Your task to perform on an android device: turn notification dots off Image 0: 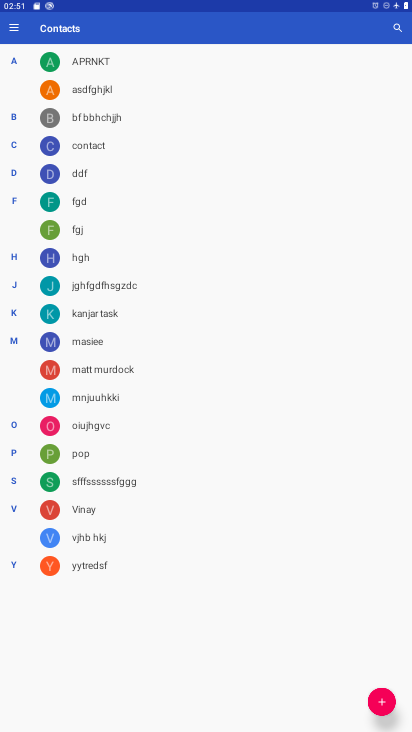
Step 0: press home button
Your task to perform on an android device: turn notification dots off Image 1: 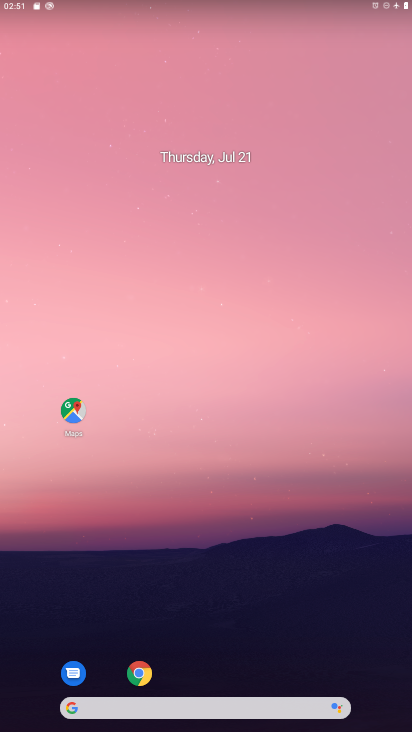
Step 1: drag from (290, 689) to (276, 27)
Your task to perform on an android device: turn notification dots off Image 2: 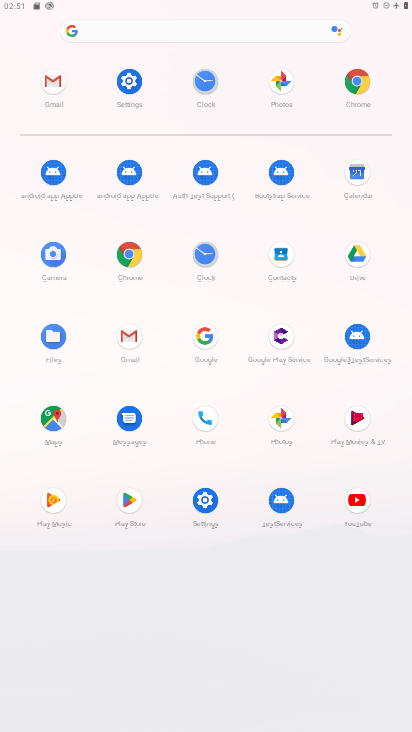
Step 2: click (137, 82)
Your task to perform on an android device: turn notification dots off Image 3: 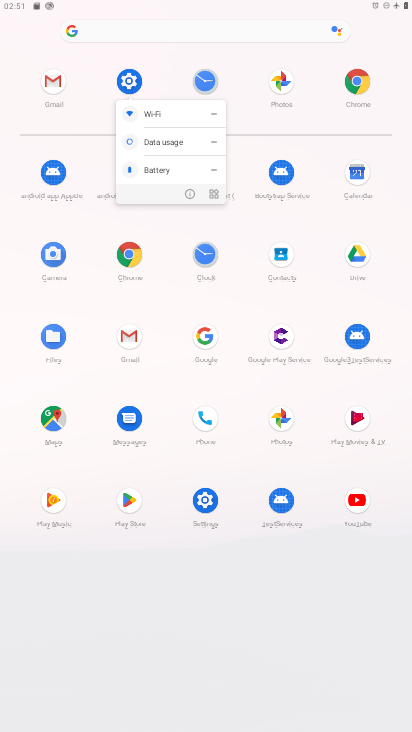
Step 3: click (123, 78)
Your task to perform on an android device: turn notification dots off Image 4: 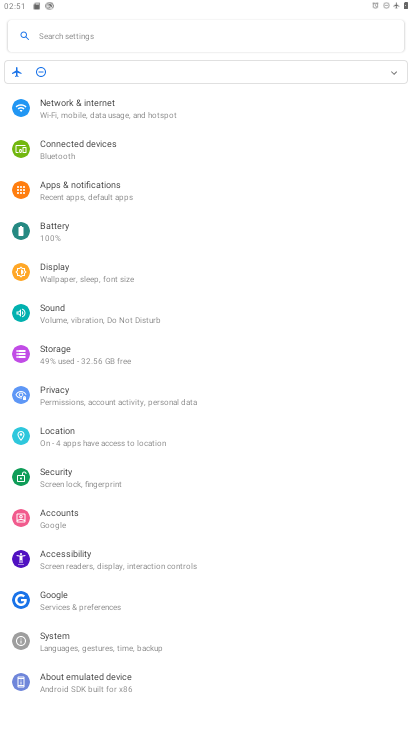
Step 4: click (140, 30)
Your task to perform on an android device: turn notification dots off Image 5: 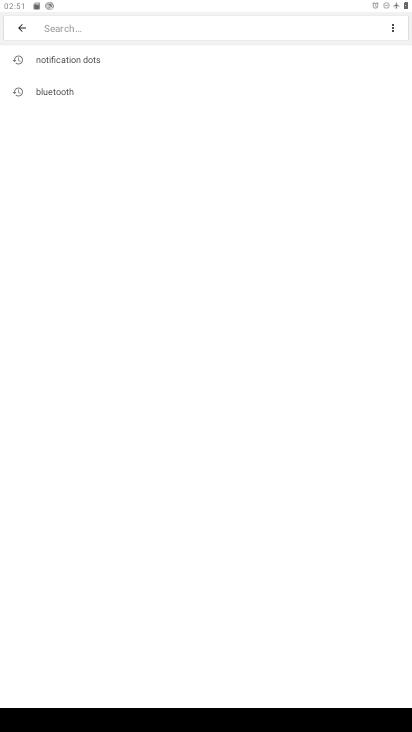
Step 5: type "notification dots  "
Your task to perform on an android device: turn notification dots off Image 6: 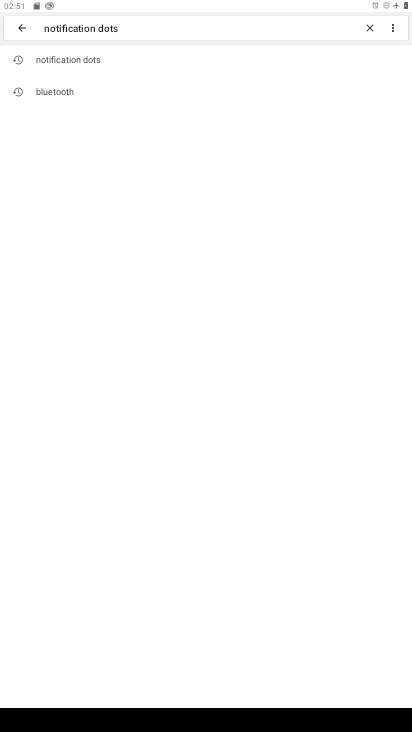
Step 6: click (79, 52)
Your task to perform on an android device: turn notification dots off Image 7: 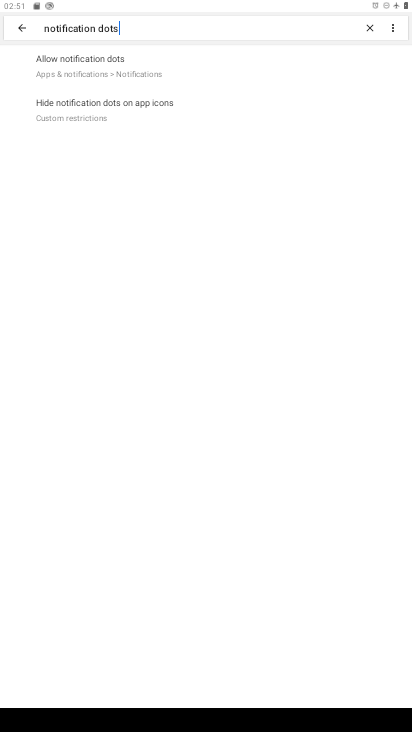
Step 7: click (93, 52)
Your task to perform on an android device: turn notification dots off Image 8: 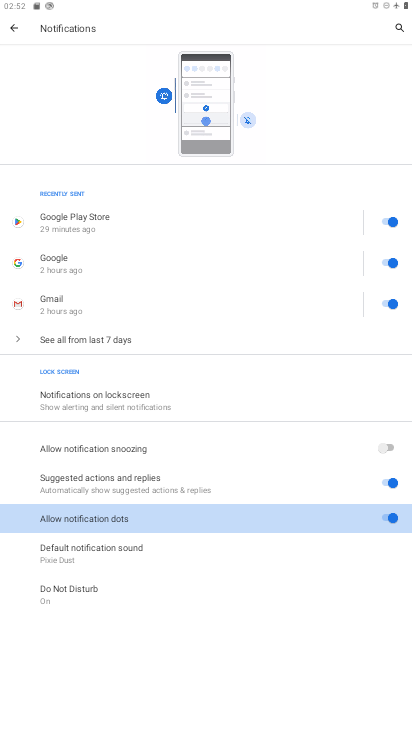
Step 8: click (395, 513)
Your task to perform on an android device: turn notification dots off Image 9: 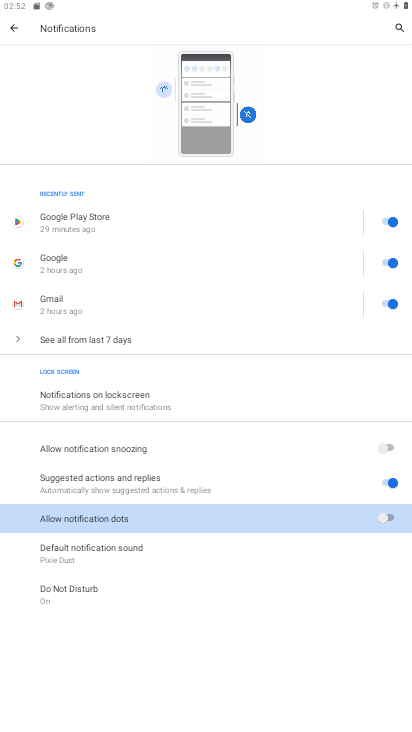
Step 9: task complete